Your task to perform on an android device: Search for macbook air on bestbuy, select the first entry, add it to the cart, then select checkout. Image 0: 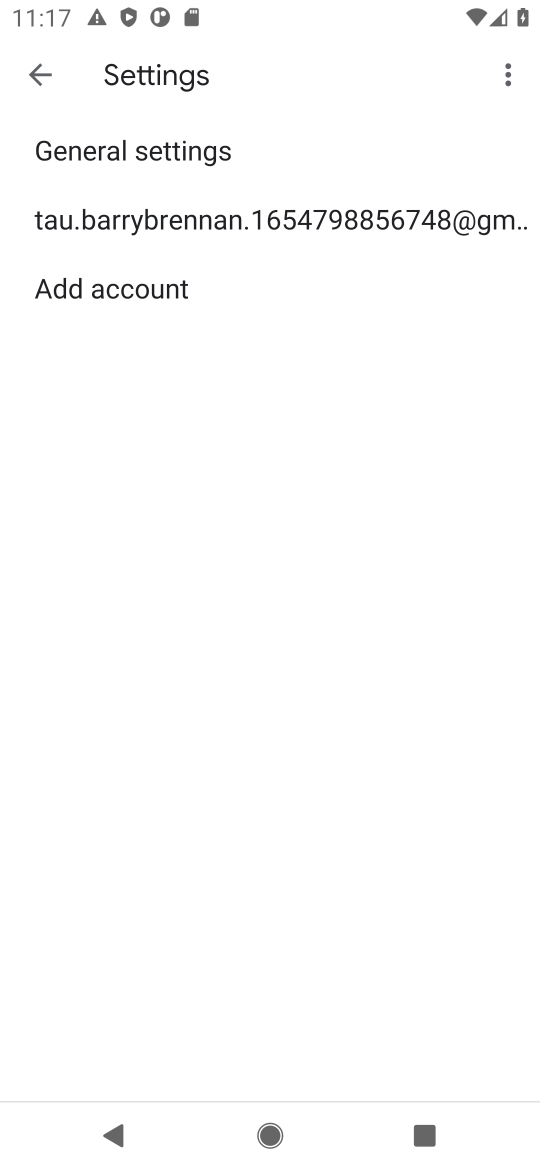
Step 0: task complete